Your task to perform on an android device: Open privacy settings Image 0: 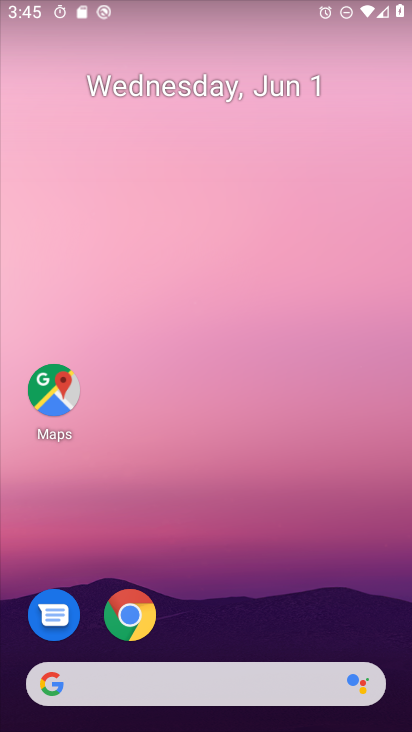
Step 0: drag from (243, 644) to (302, 52)
Your task to perform on an android device: Open privacy settings Image 1: 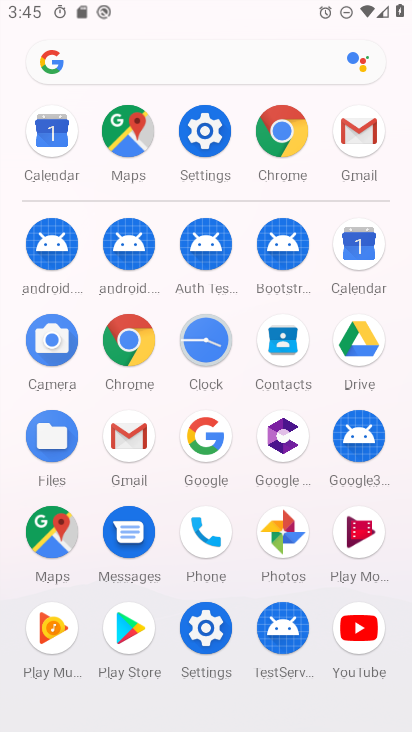
Step 1: click (208, 143)
Your task to perform on an android device: Open privacy settings Image 2: 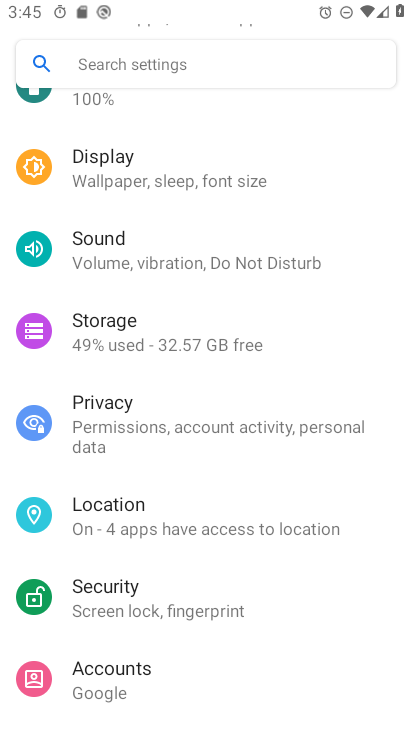
Step 2: click (218, 430)
Your task to perform on an android device: Open privacy settings Image 3: 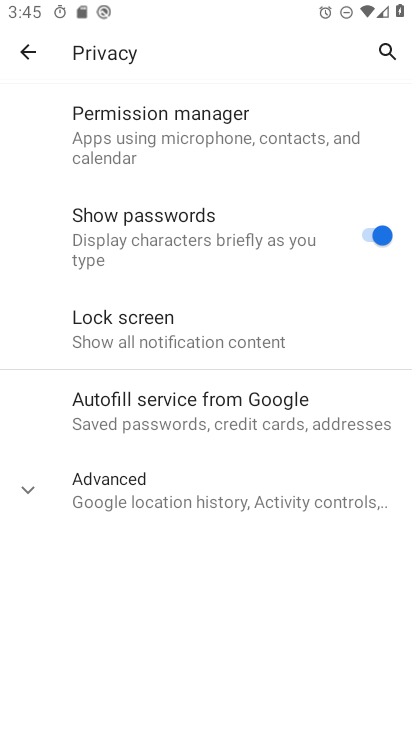
Step 3: click (182, 488)
Your task to perform on an android device: Open privacy settings Image 4: 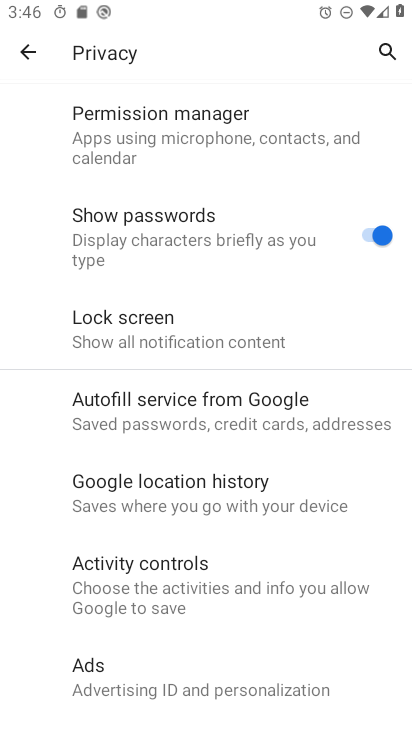
Step 4: task complete